Your task to perform on an android device: Open Yahoo.com Image 0: 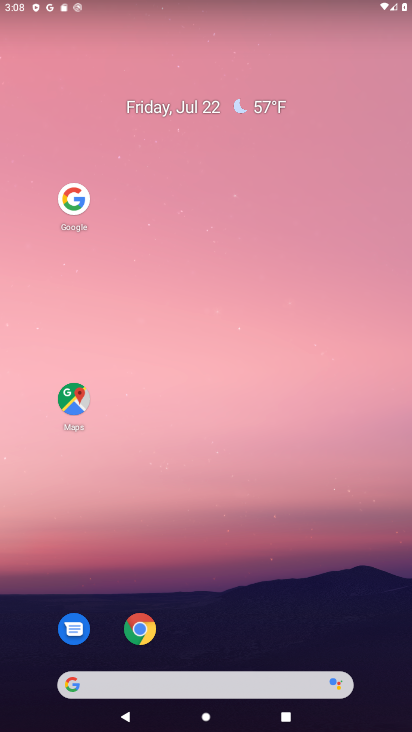
Step 0: click (139, 618)
Your task to perform on an android device: Open Yahoo.com Image 1: 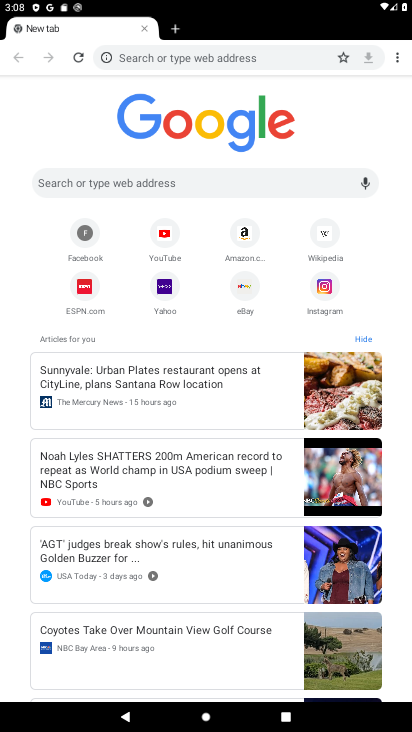
Step 1: click (164, 296)
Your task to perform on an android device: Open Yahoo.com Image 2: 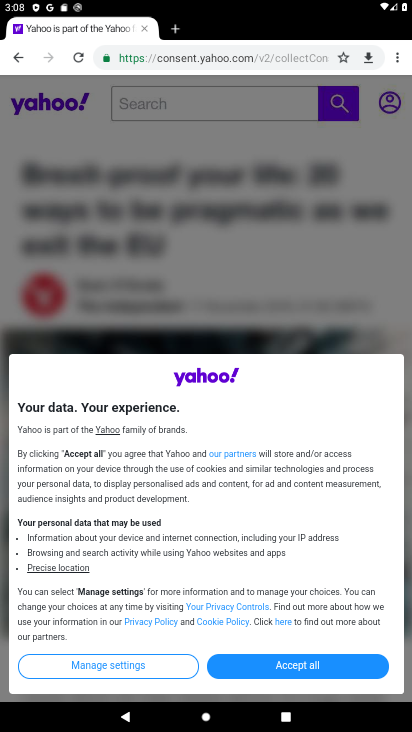
Step 2: task complete